Your task to perform on an android device: Search for a new skincare product Image 0: 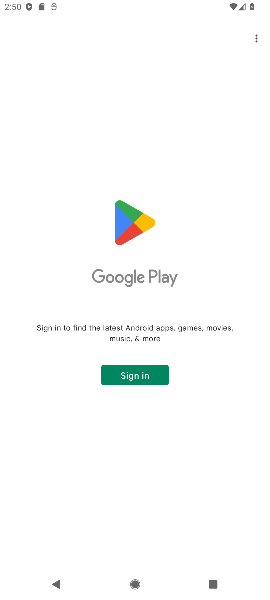
Step 0: press home button
Your task to perform on an android device: Search for a new skincare product Image 1: 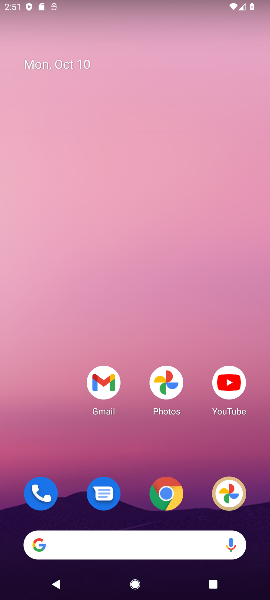
Step 1: click (164, 497)
Your task to perform on an android device: Search for a new skincare product Image 2: 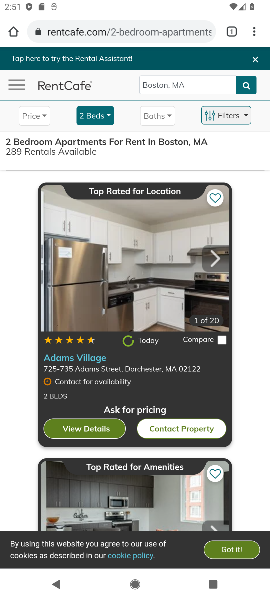
Step 2: click (122, 26)
Your task to perform on an android device: Search for a new skincare product Image 3: 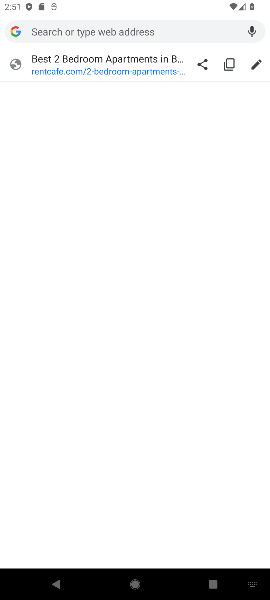
Step 3: click (171, 20)
Your task to perform on an android device: Search for a new skincare product Image 4: 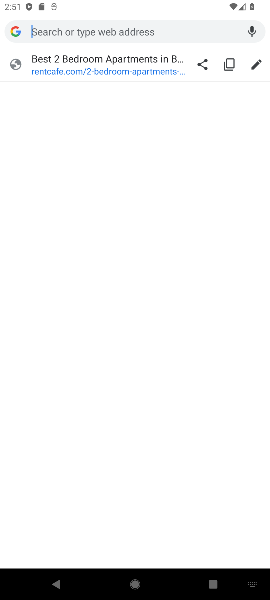
Step 4: type "new skincare product"
Your task to perform on an android device: Search for a new skincare product Image 5: 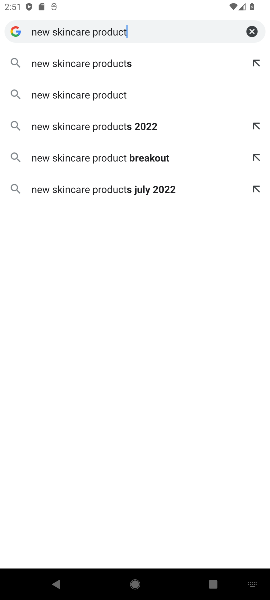
Step 5: click (123, 96)
Your task to perform on an android device: Search for a new skincare product Image 6: 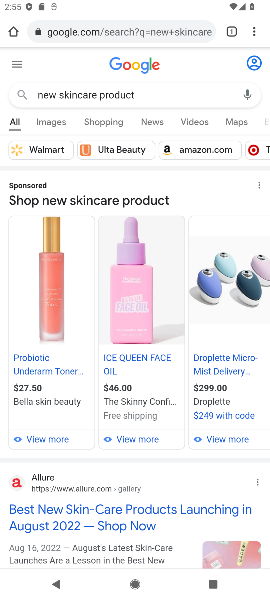
Step 6: task complete